Your task to perform on an android device: see tabs open on other devices in the chrome app Image 0: 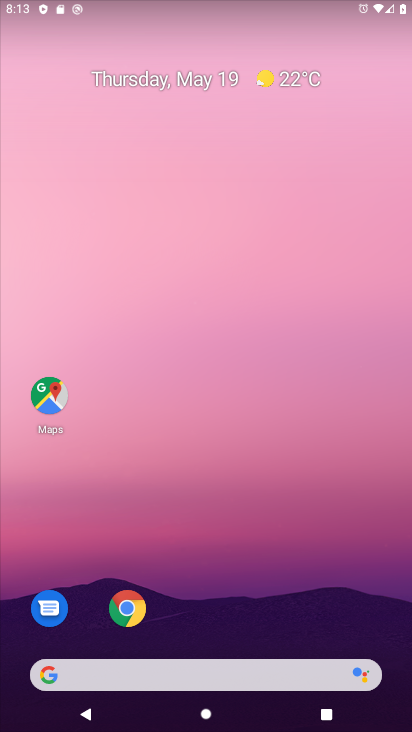
Step 0: click (141, 605)
Your task to perform on an android device: see tabs open on other devices in the chrome app Image 1: 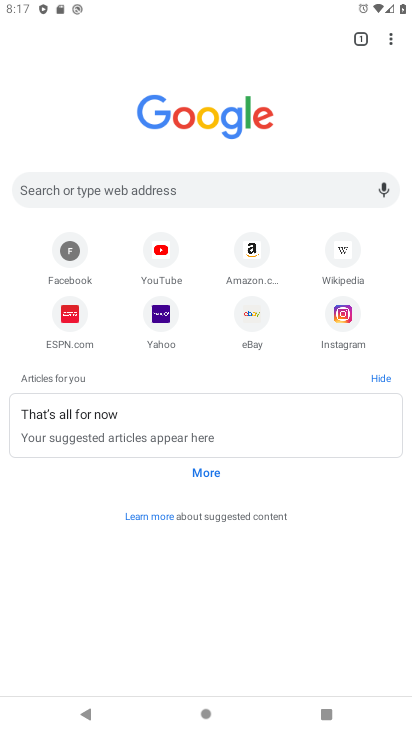
Step 1: click (393, 31)
Your task to perform on an android device: see tabs open on other devices in the chrome app Image 2: 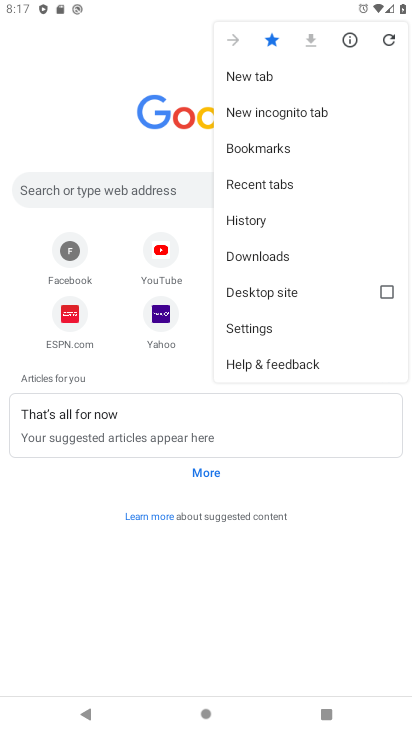
Step 2: click (273, 183)
Your task to perform on an android device: see tabs open on other devices in the chrome app Image 3: 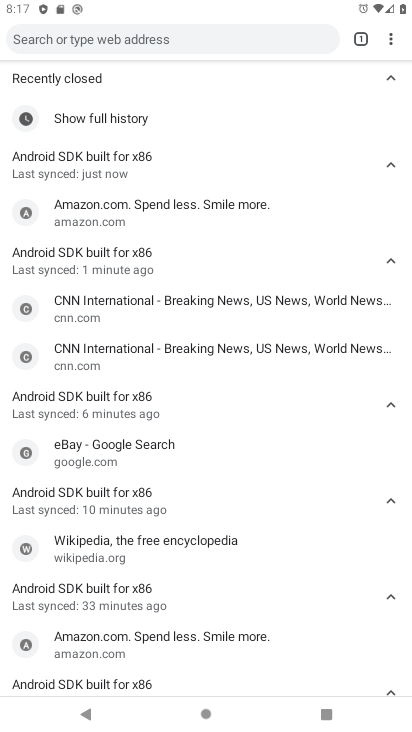
Step 3: task complete